Your task to perform on an android device: Open calendar and show me the second week of next month Image 0: 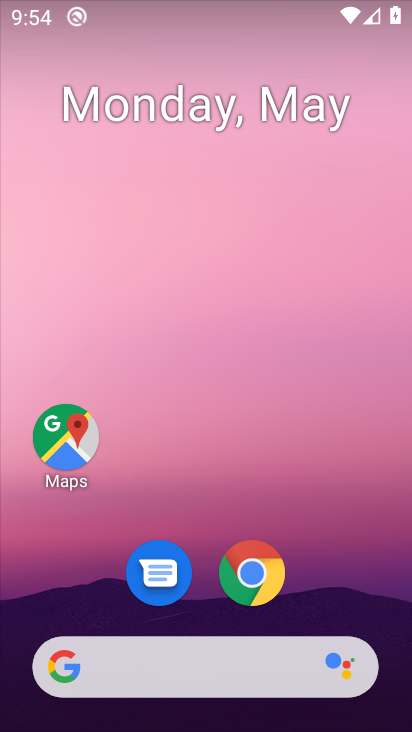
Step 0: drag from (233, 451) to (243, 173)
Your task to perform on an android device: Open calendar and show me the second week of next month Image 1: 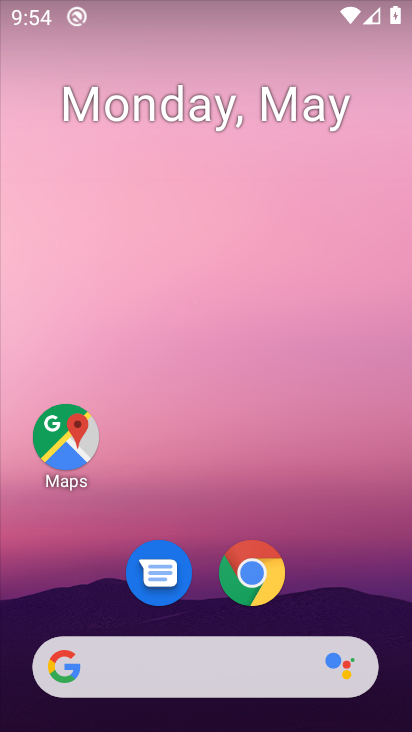
Step 1: drag from (188, 497) to (242, 52)
Your task to perform on an android device: Open calendar and show me the second week of next month Image 2: 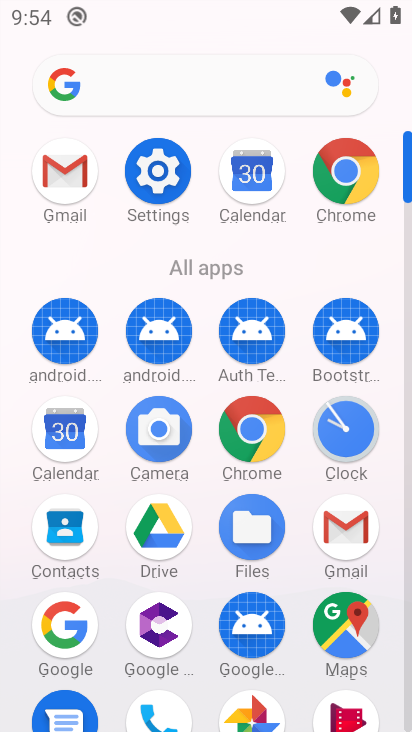
Step 2: click (61, 440)
Your task to perform on an android device: Open calendar and show me the second week of next month Image 3: 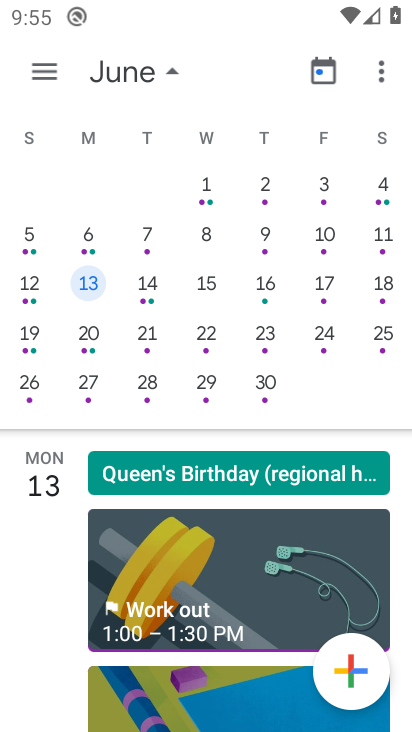
Step 3: click (89, 239)
Your task to perform on an android device: Open calendar and show me the second week of next month Image 4: 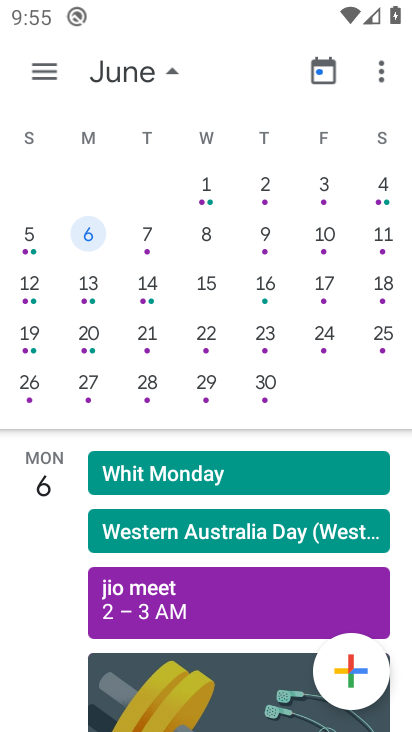
Step 4: task complete